Your task to perform on an android device: Go to privacy settings Image 0: 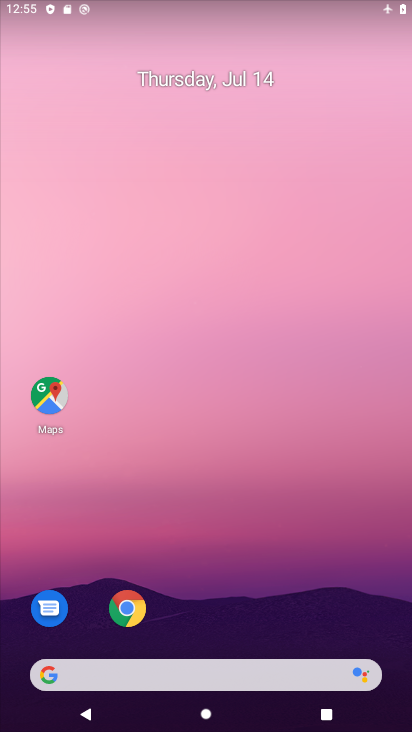
Step 0: click (331, 44)
Your task to perform on an android device: Go to privacy settings Image 1: 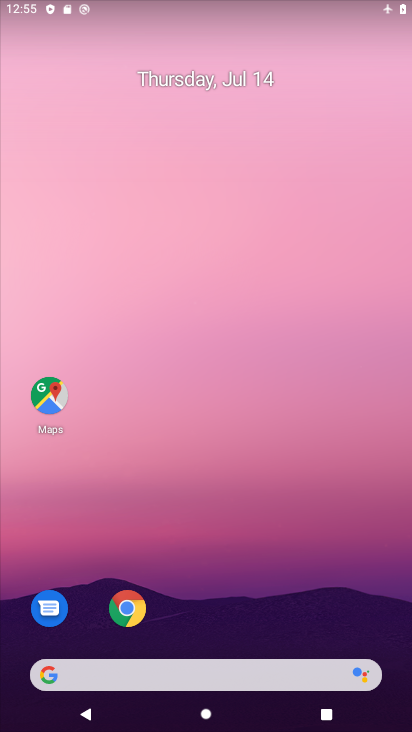
Step 1: drag from (337, 631) to (302, 98)
Your task to perform on an android device: Go to privacy settings Image 2: 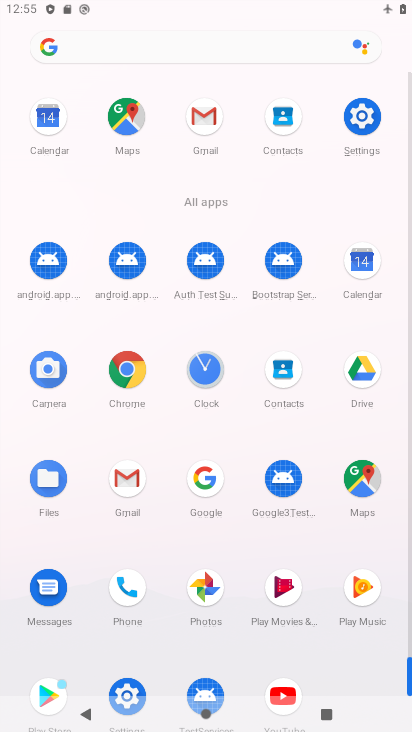
Step 2: drag from (161, 648) to (173, 357)
Your task to perform on an android device: Go to privacy settings Image 3: 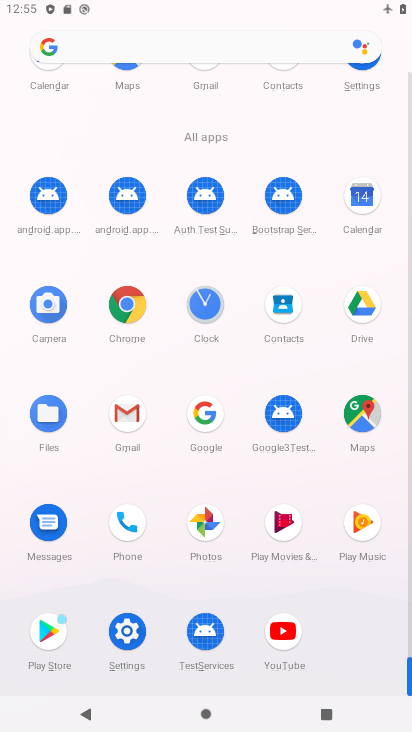
Step 3: click (126, 629)
Your task to perform on an android device: Go to privacy settings Image 4: 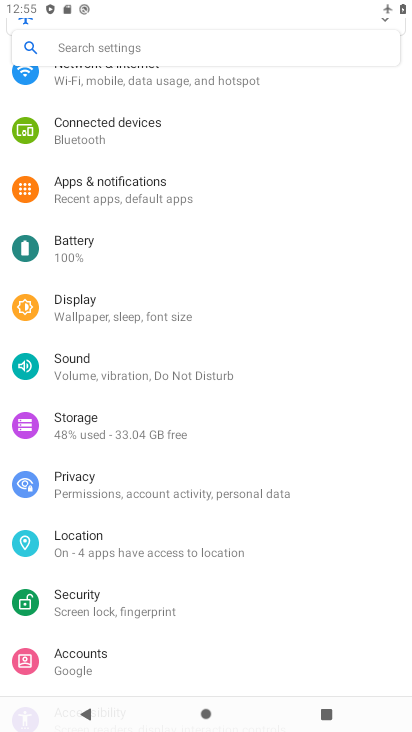
Step 4: click (87, 483)
Your task to perform on an android device: Go to privacy settings Image 5: 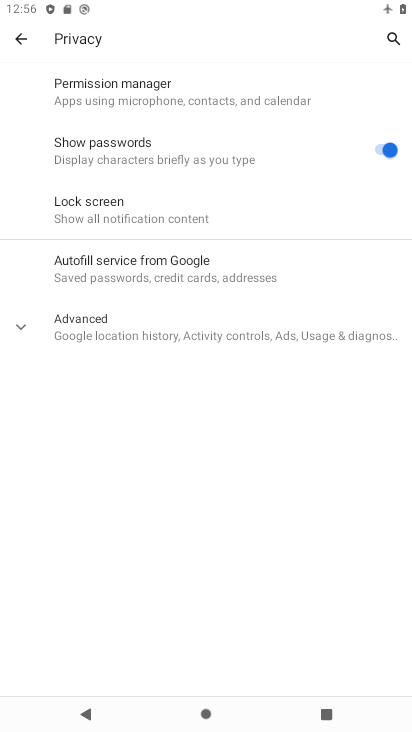
Step 5: click (19, 326)
Your task to perform on an android device: Go to privacy settings Image 6: 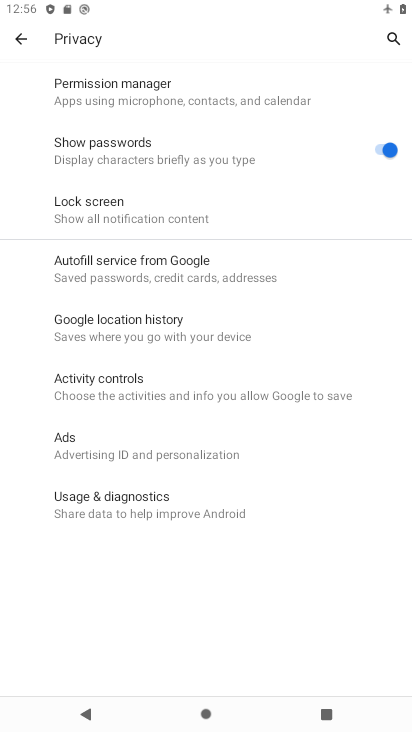
Step 6: task complete